Your task to perform on an android device: set the timer Image 0: 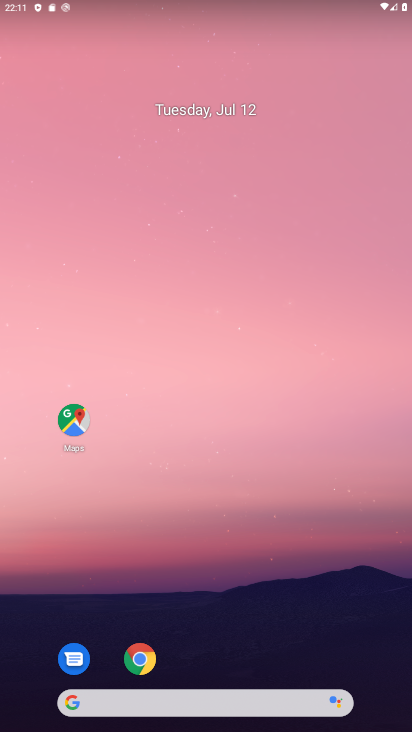
Step 0: drag from (280, 639) to (253, 375)
Your task to perform on an android device: set the timer Image 1: 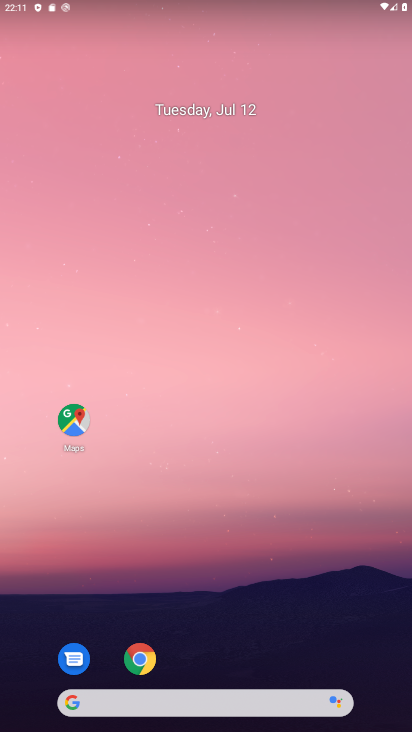
Step 1: drag from (212, 669) to (230, 205)
Your task to perform on an android device: set the timer Image 2: 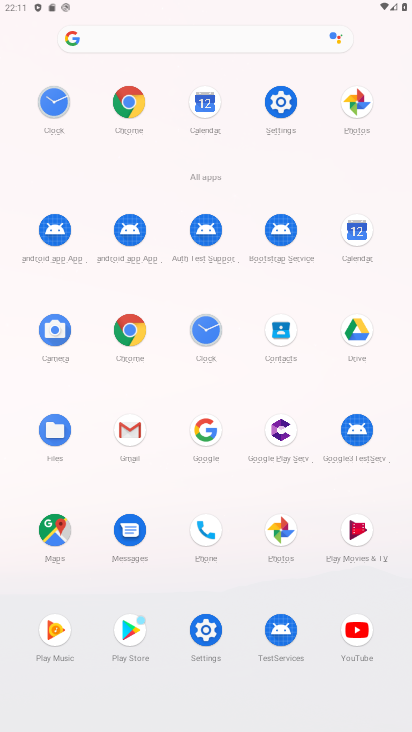
Step 2: click (211, 327)
Your task to perform on an android device: set the timer Image 3: 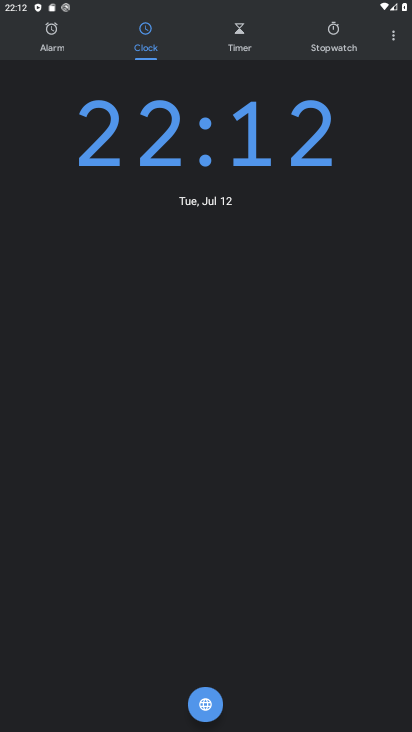
Step 3: task complete